Your task to perform on an android device: see sites visited before in the chrome app Image 0: 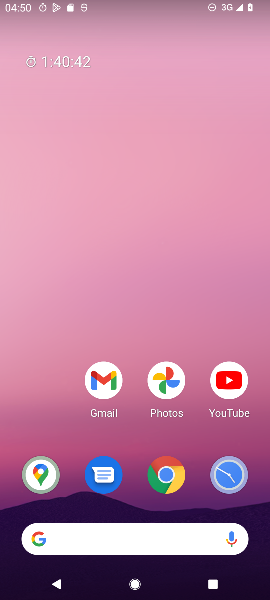
Step 0: press home button
Your task to perform on an android device: see sites visited before in the chrome app Image 1: 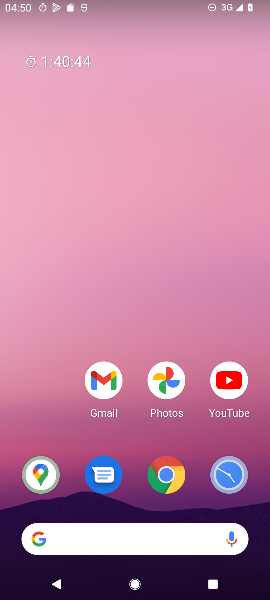
Step 1: drag from (60, 431) to (90, 164)
Your task to perform on an android device: see sites visited before in the chrome app Image 2: 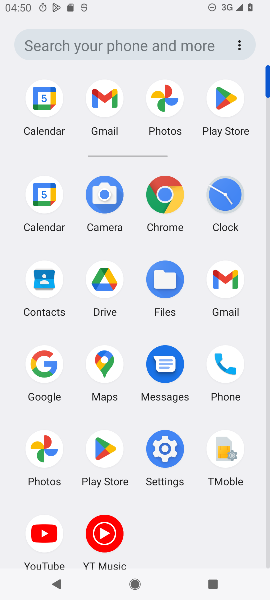
Step 2: click (161, 192)
Your task to perform on an android device: see sites visited before in the chrome app Image 3: 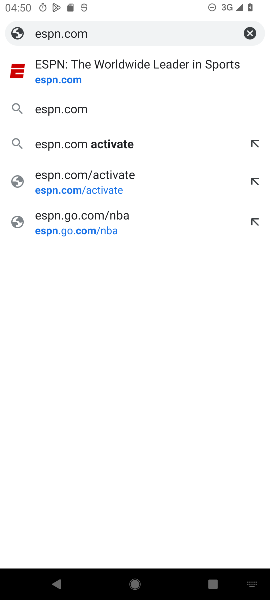
Step 3: press back button
Your task to perform on an android device: see sites visited before in the chrome app Image 4: 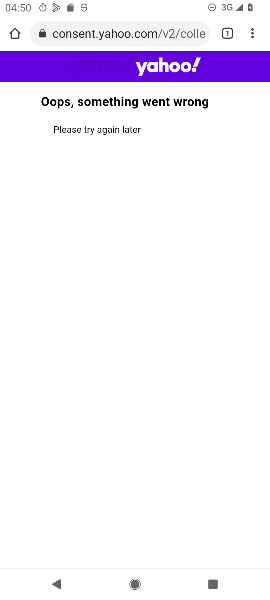
Step 4: click (252, 36)
Your task to perform on an android device: see sites visited before in the chrome app Image 5: 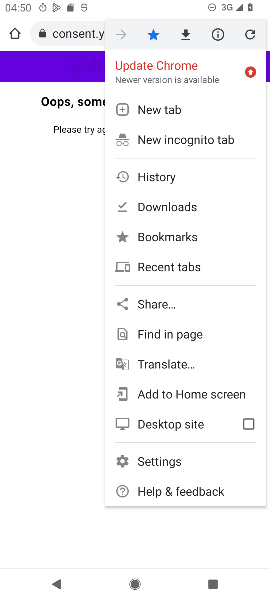
Step 5: click (189, 173)
Your task to perform on an android device: see sites visited before in the chrome app Image 6: 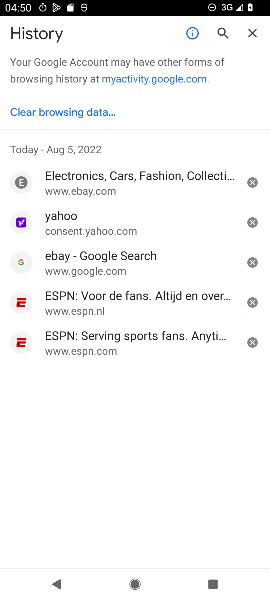
Step 6: task complete